Your task to perform on an android device: Search for jbl charge 4 on target.com, select the first entry, add it to the cart, then select checkout. Image 0: 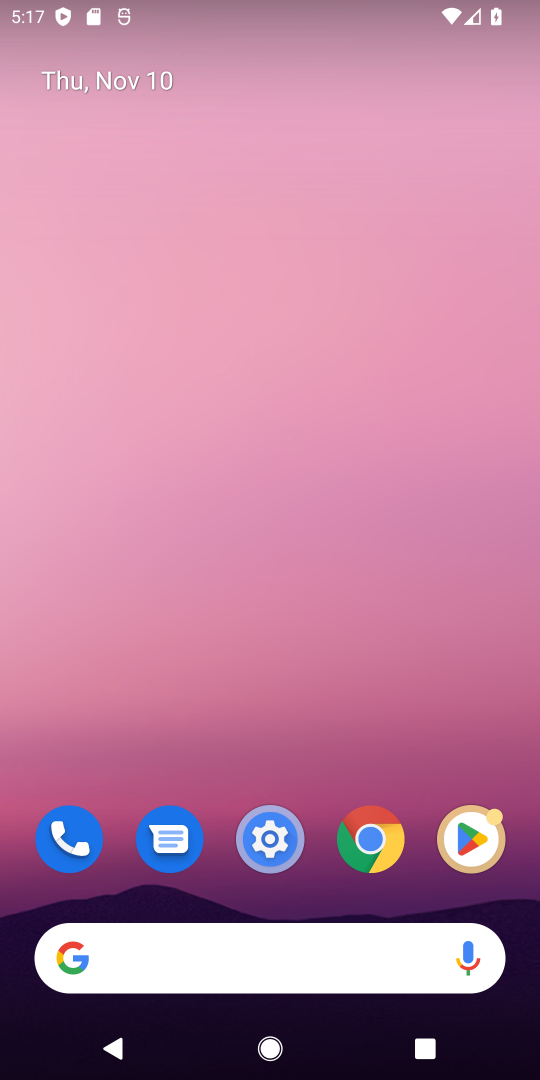
Step 0: click (372, 844)
Your task to perform on an android device: Search for jbl charge 4 on target.com, select the first entry, add it to the cart, then select checkout. Image 1: 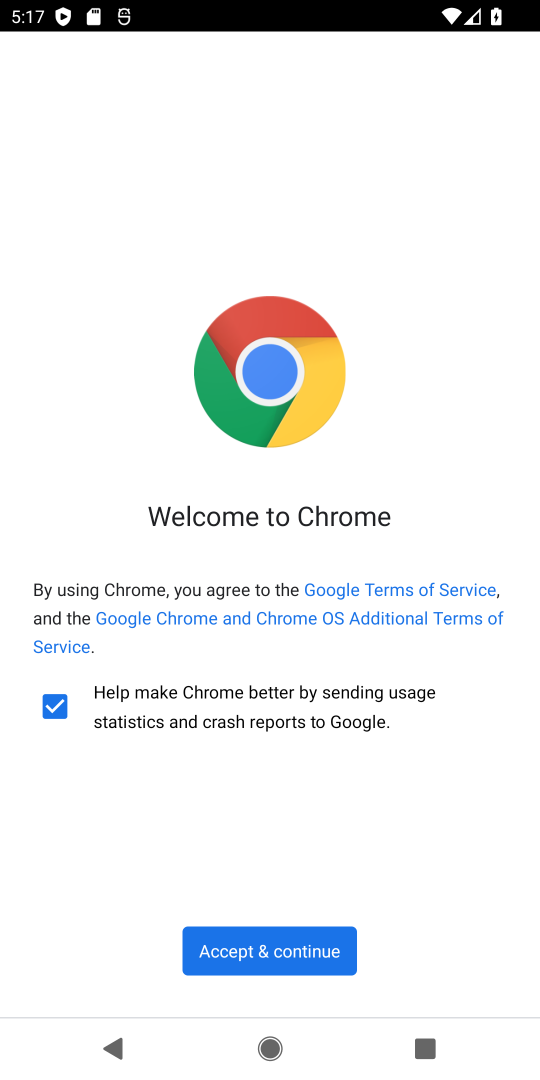
Step 1: click (259, 935)
Your task to perform on an android device: Search for jbl charge 4 on target.com, select the first entry, add it to the cart, then select checkout. Image 2: 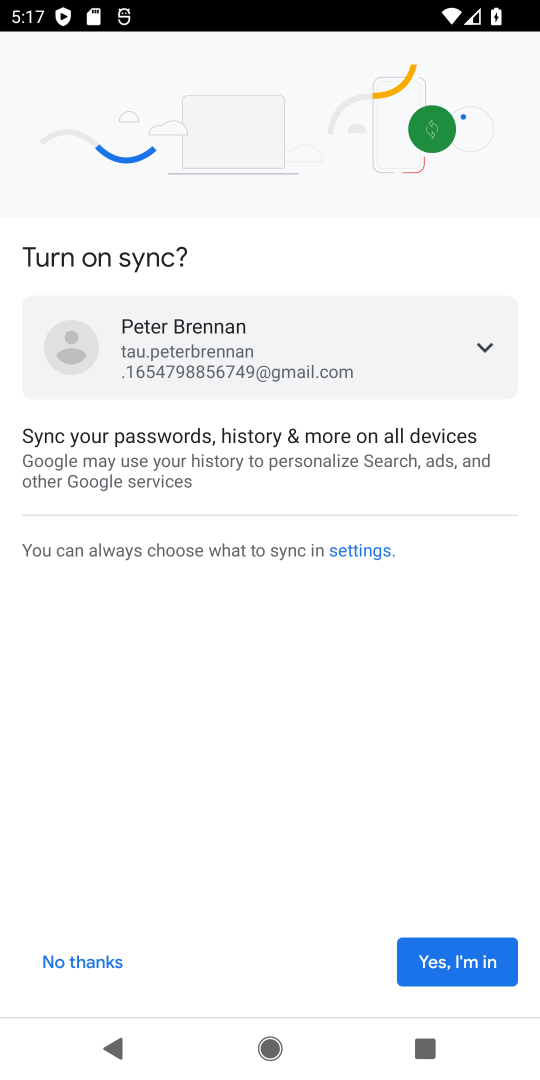
Step 2: click (451, 957)
Your task to perform on an android device: Search for jbl charge 4 on target.com, select the first entry, add it to the cart, then select checkout. Image 3: 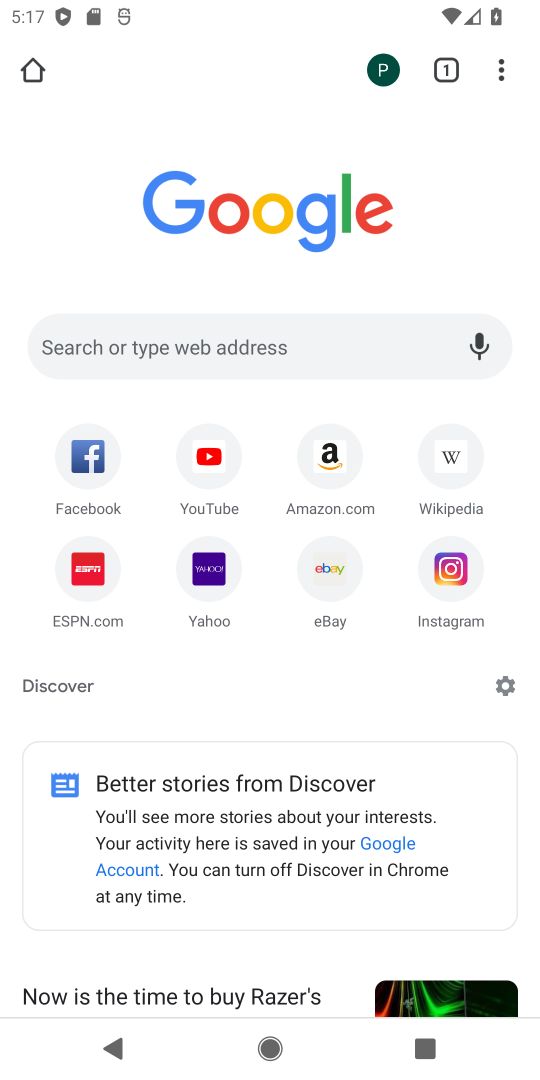
Step 3: click (184, 360)
Your task to perform on an android device: Search for jbl charge 4 on target.com, select the first entry, add it to the cart, then select checkout. Image 4: 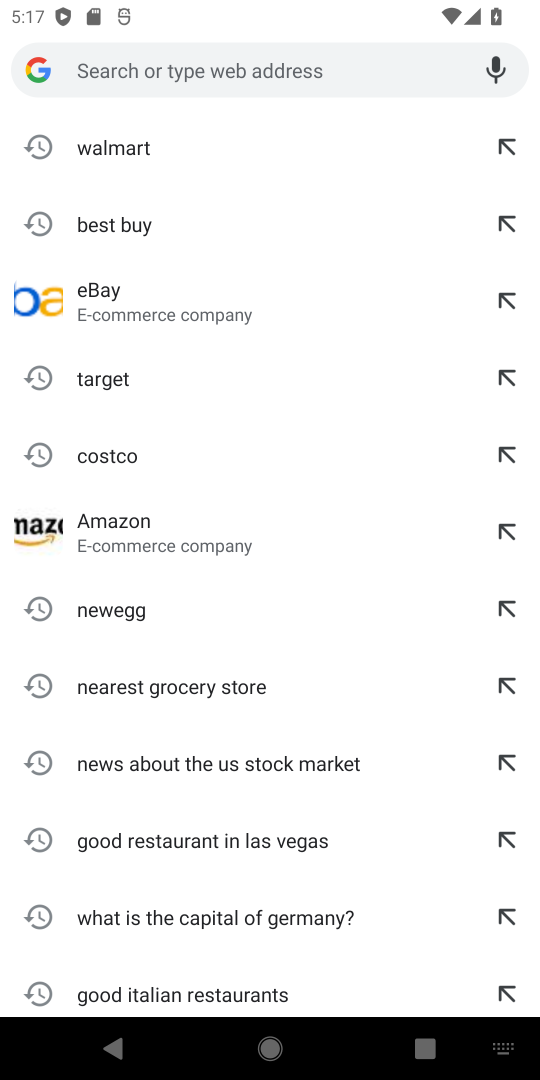
Step 4: click (85, 377)
Your task to perform on an android device: Search for jbl charge 4 on target.com, select the first entry, add it to the cart, then select checkout. Image 5: 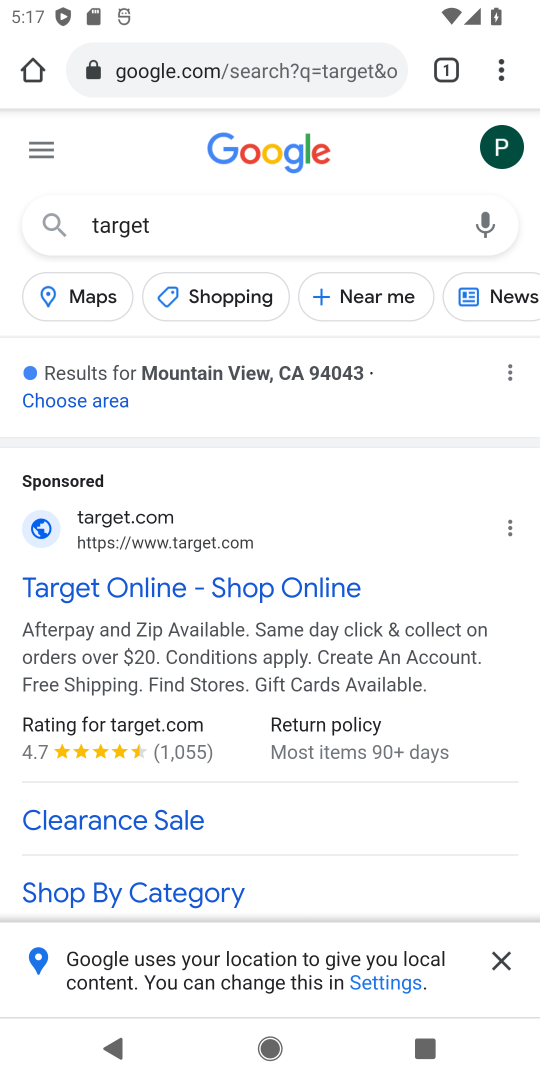
Step 5: click (105, 585)
Your task to perform on an android device: Search for jbl charge 4 on target.com, select the first entry, add it to the cart, then select checkout. Image 6: 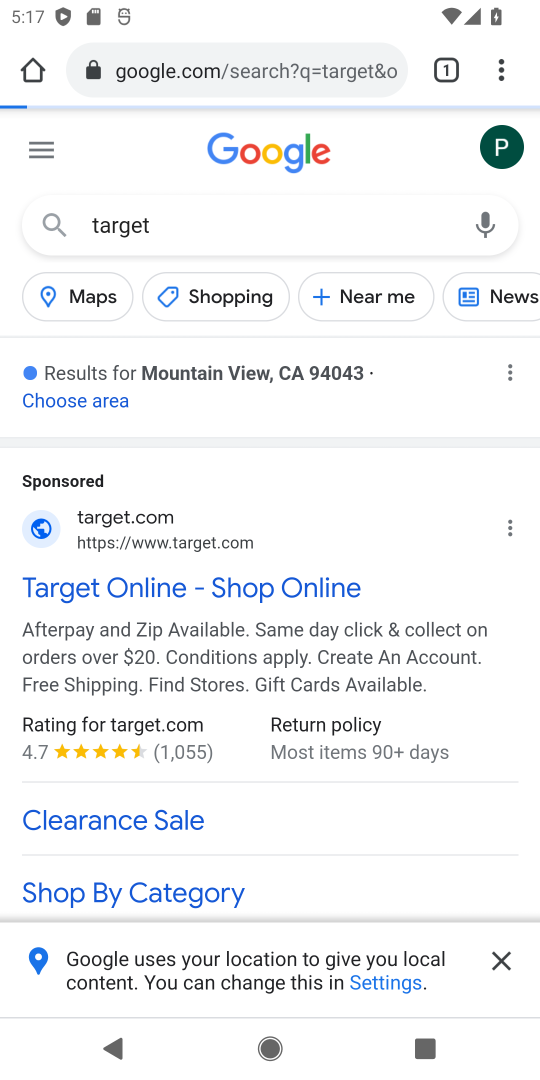
Step 6: click (105, 585)
Your task to perform on an android device: Search for jbl charge 4 on target.com, select the first entry, add it to the cart, then select checkout. Image 7: 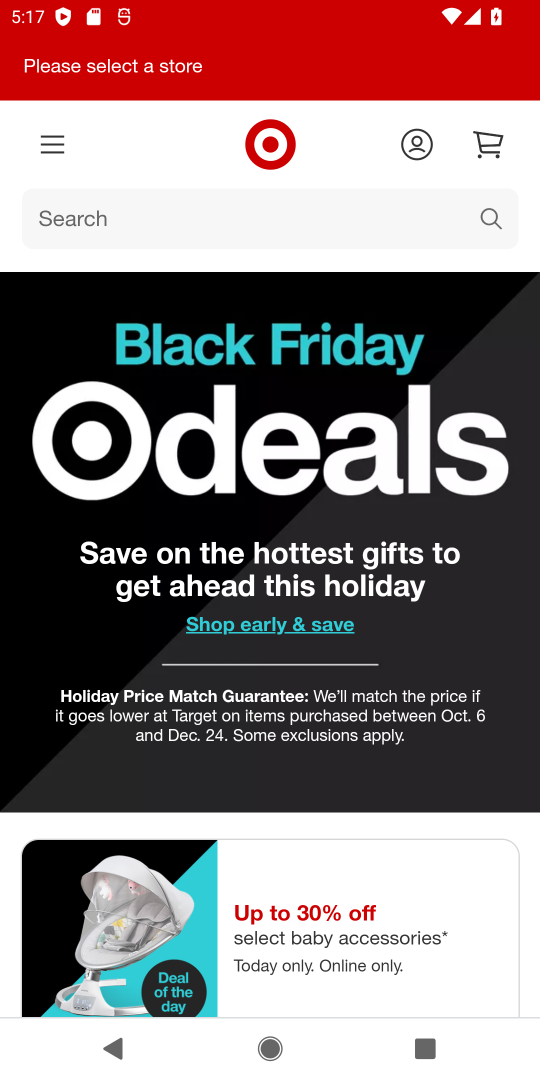
Step 7: click (85, 215)
Your task to perform on an android device: Search for jbl charge 4 on target.com, select the first entry, add it to the cart, then select checkout. Image 8: 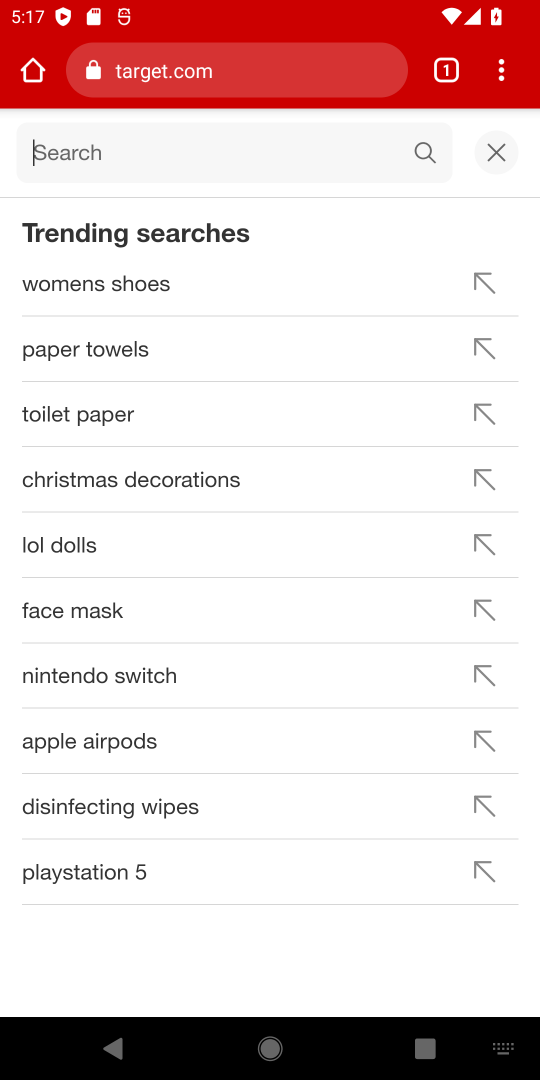
Step 8: type "jbl charge 4"
Your task to perform on an android device: Search for jbl charge 4 on target.com, select the first entry, add it to the cart, then select checkout. Image 9: 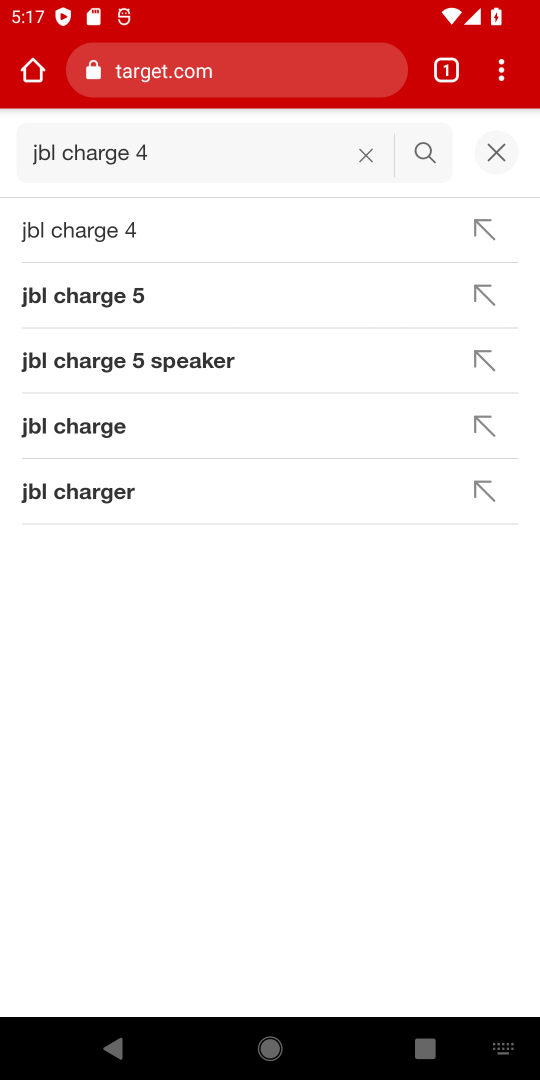
Step 9: click (105, 230)
Your task to perform on an android device: Search for jbl charge 4 on target.com, select the first entry, add it to the cart, then select checkout. Image 10: 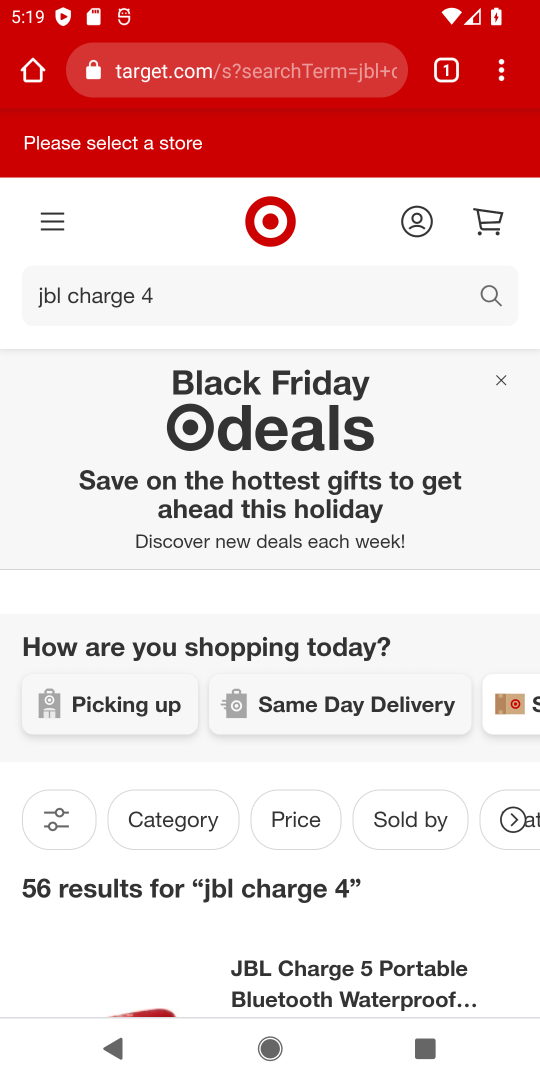
Step 10: drag from (308, 934) to (498, 253)
Your task to perform on an android device: Search for jbl charge 4 on target.com, select the first entry, add it to the cart, then select checkout. Image 11: 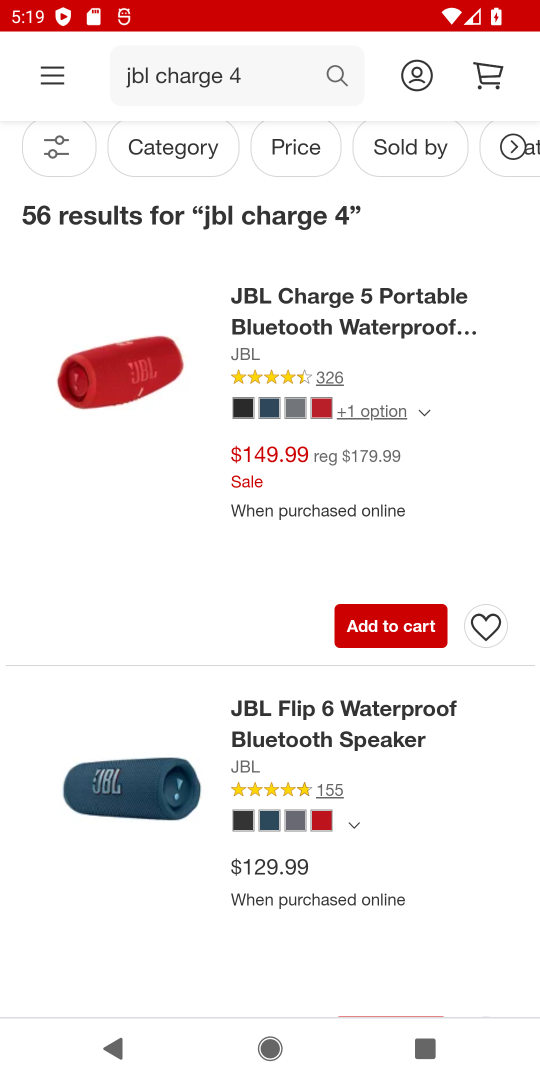
Step 11: click (393, 634)
Your task to perform on an android device: Search for jbl charge 4 on target.com, select the first entry, add it to the cart, then select checkout. Image 12: 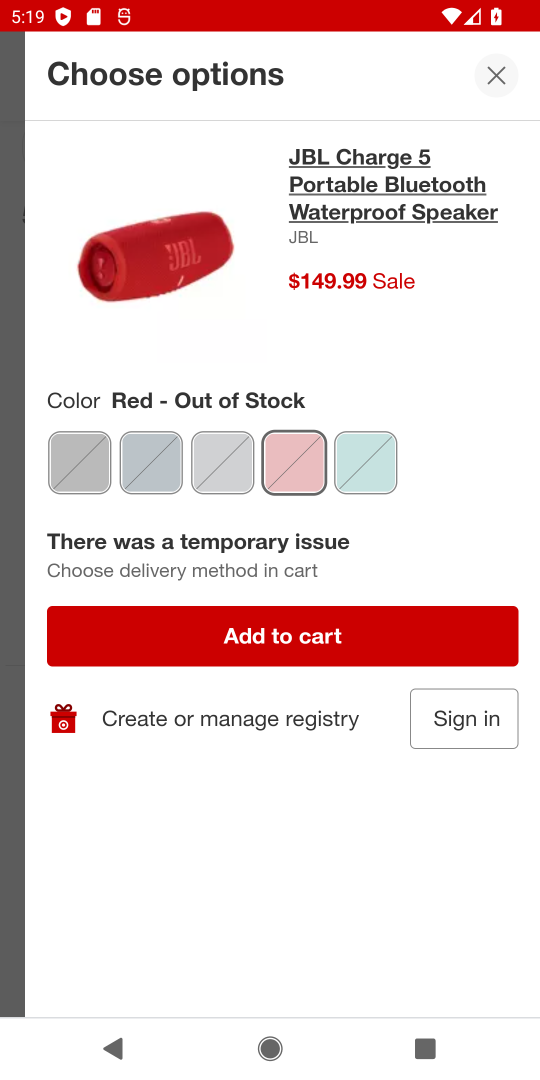
Step 12: click (320, 639)
Your task to perform on an android device: Search for jbl charge 4 on target.com, select the first entry, add it to the cart, then select checkout. Image 13: 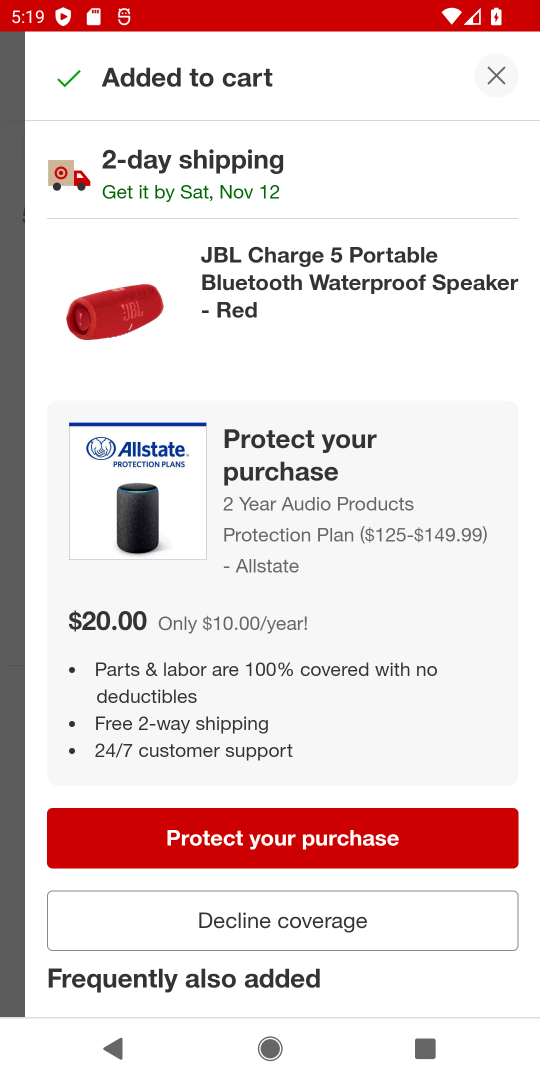
Step 13: click (325, 923)
Your task to perform on an android device: Search for jbl charge 4 on target.com, select the first entry, add it to the cart, then select checkout. Image 14: 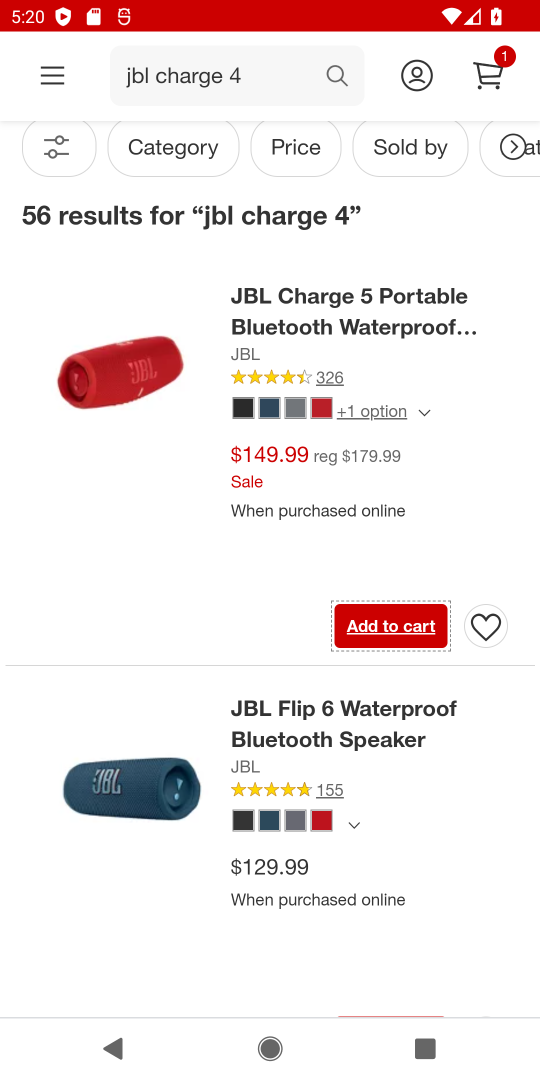
Step 14: click (499, 71)
Your task to perform on an android device: Search for jbl charge 4 on target.com, select the first entry, add it to the cart, then select checkout. Image 15: 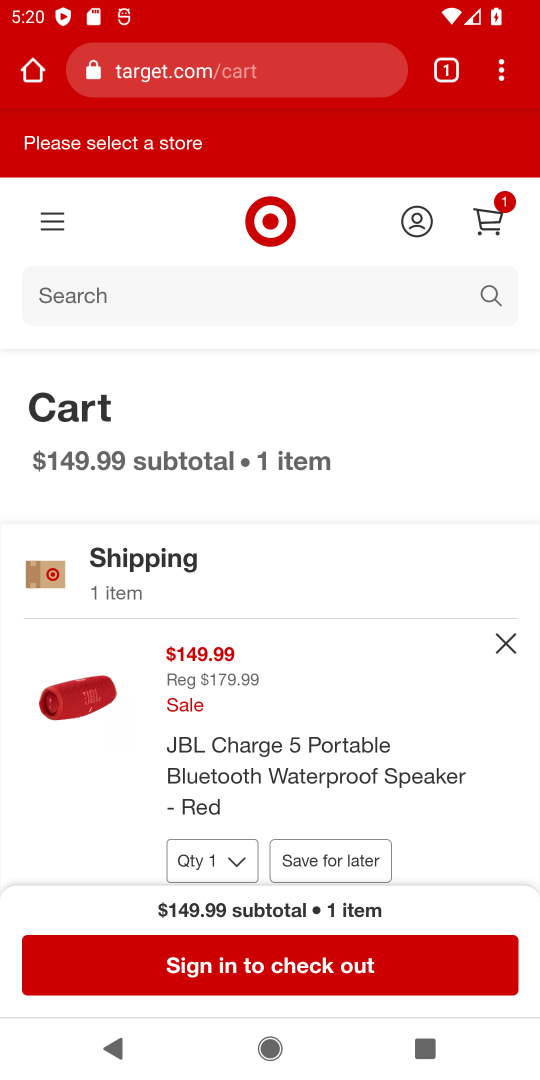
Step 15: click (323, 971)
Your task to perform on an android device: Search for jbl charge 4 on target.com, select the first entry, add it to the cart, then select checkout. Image 16: 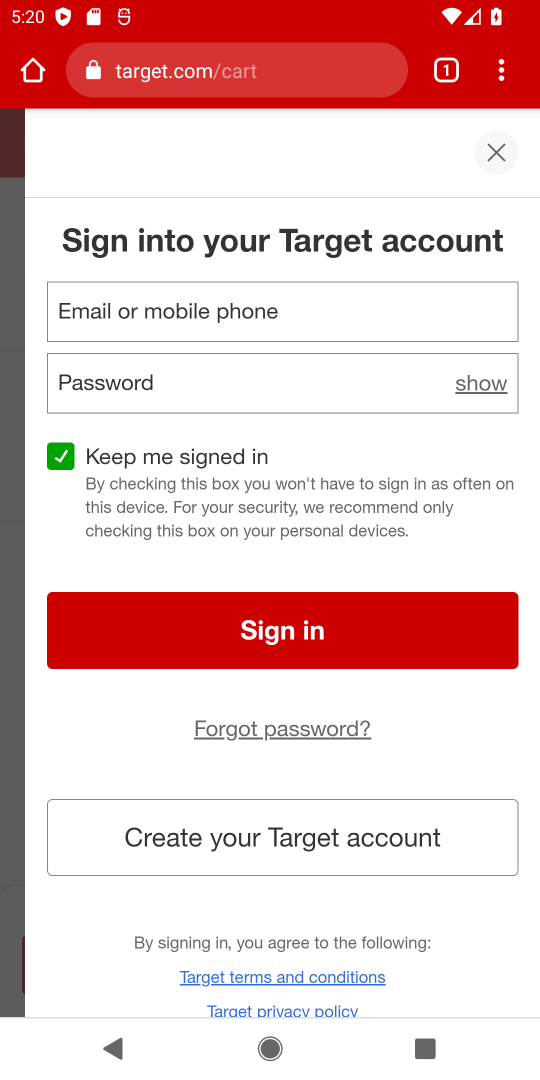
Step 16: task complete